Your task to perform on an android device: turn on javascript in the chrome app Image 0: 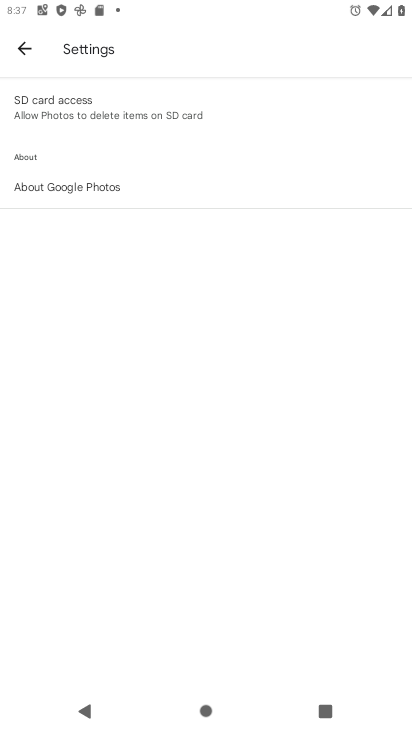
Step 0: press home button
Your task to perform on an android device: turn on javascript in the chrome app Image 1: 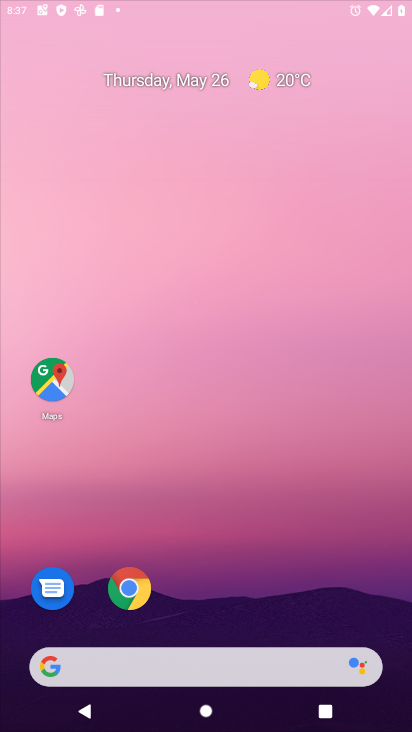
Step 1: drag from (399, 641) to (334, 67)
Your task to perform on an android device: turn on javascript in the chrome app Image 2: 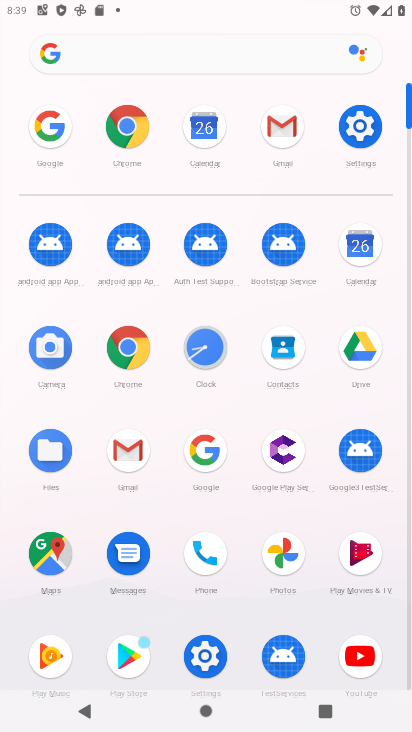
Step 2: click (119, 356)
Your task to perform on an android device: turn on javascript in the chrome app Image 3: 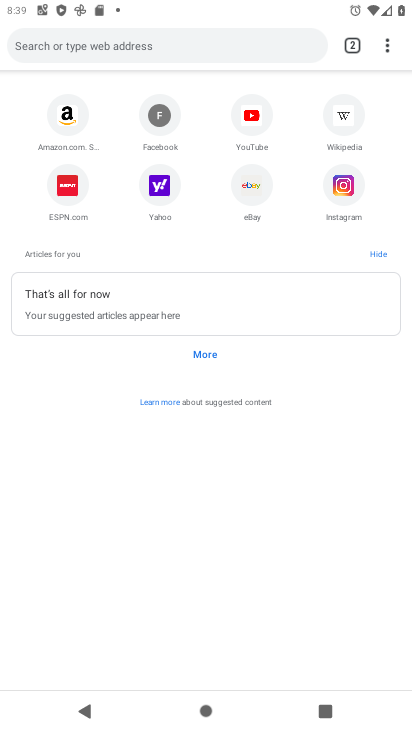
Step 3: click (392, 36)
Your task to perform on an android device: turn on javascript in the chrome app Image 4: 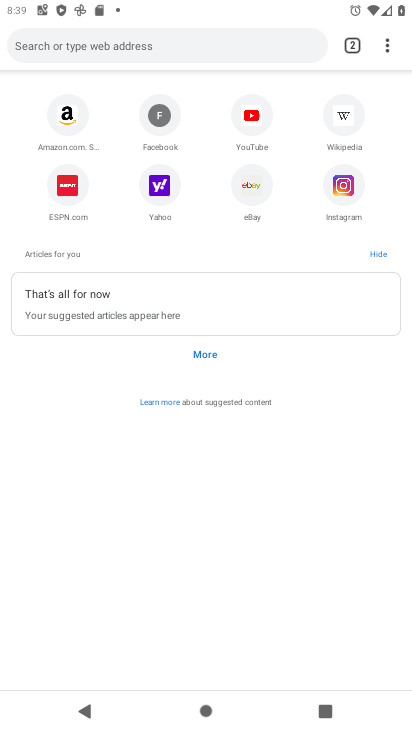
Step 4: click (383, 37)
Your task to perform on an android device: turn on javascript in the chrome app Image 5: 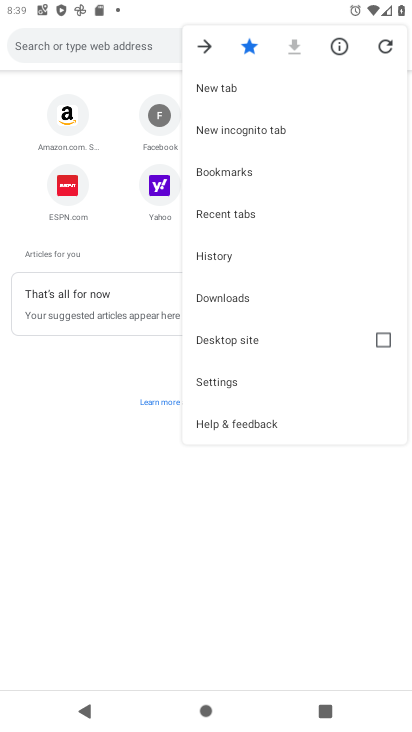
Step 5: click (229, 374)
Your task to perform on an android device: turn on javascript in the chrome app Image 6: 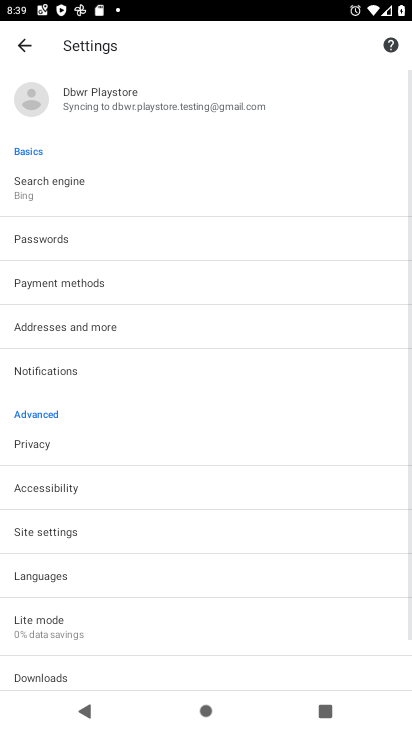
Step 6: click (46, 527)
Your task to perform on an android device: turn on javascript in the chrome app Image 7: 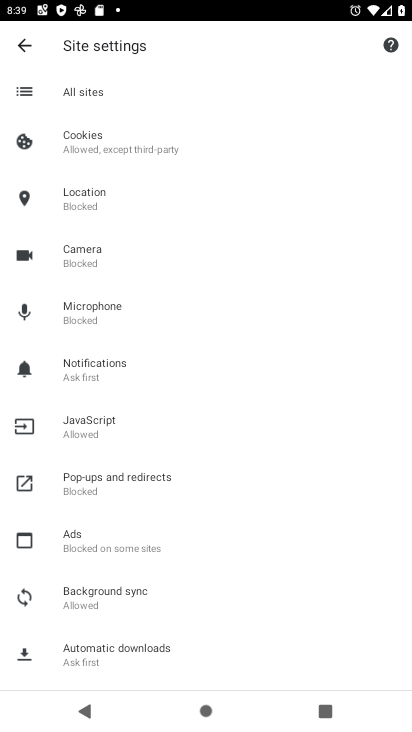
Step 7: click (126, 410)
Your task to perform on an android device: turn on javascript in the chrome app Image 8: 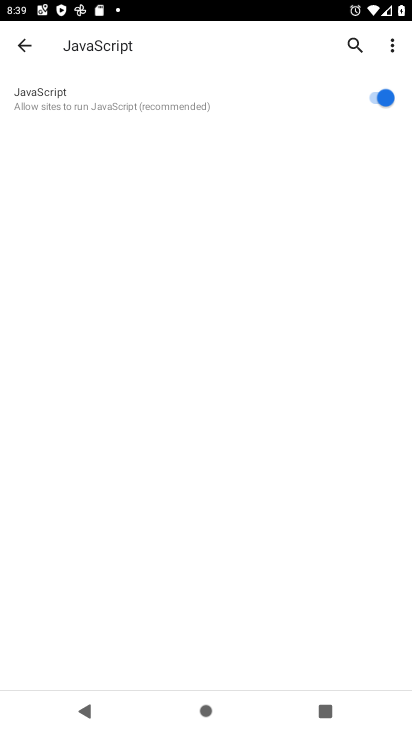
Step 8: task complete